Your task to perform on an android device: find snoozed emails in the gmail app Image 0: 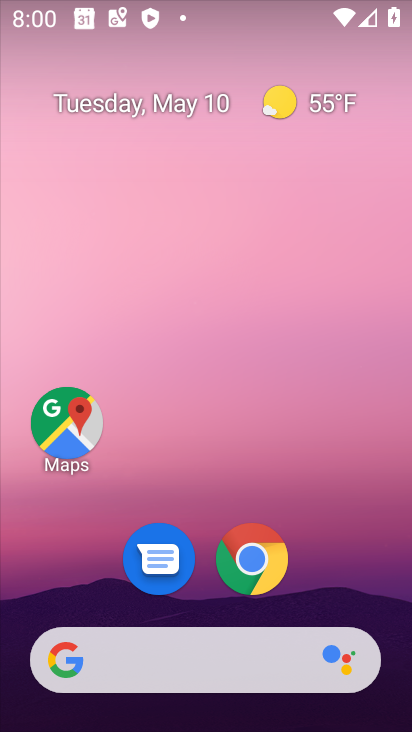
Step 0: drag from (237, 726) to (230, 230)
Your task to perform on an android device: find snoozed emails in the gmail app Image 1: 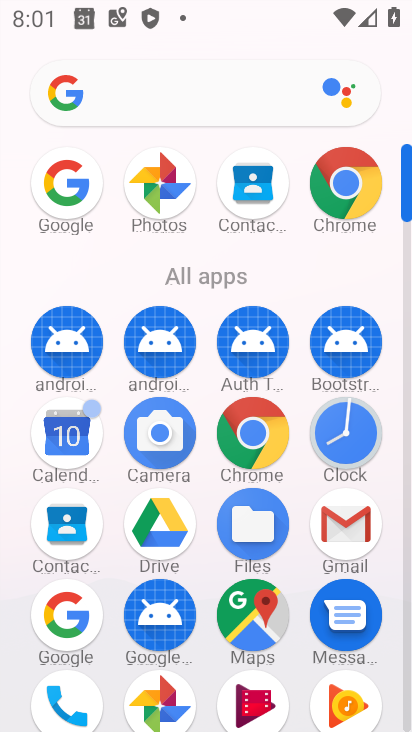
Step 1: drag from (214, 669) to (214, 349)
Your task to perform on an android device: find snoozed emails in the gmail app Image 2: 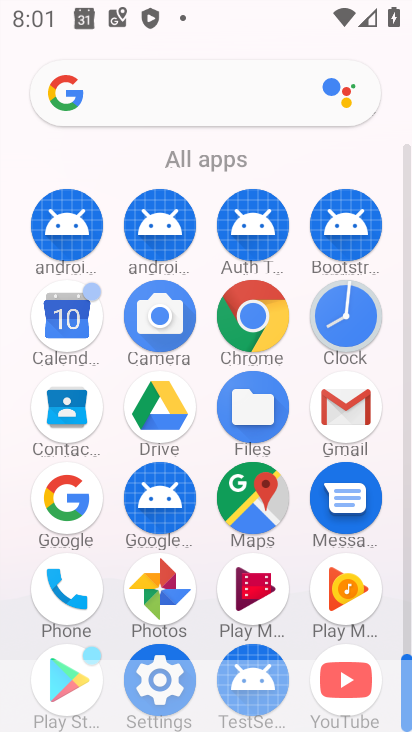
Step 2: click (339, 417)
Your task to perform on an android device: find snoozed emails in the gmail app Image 3: 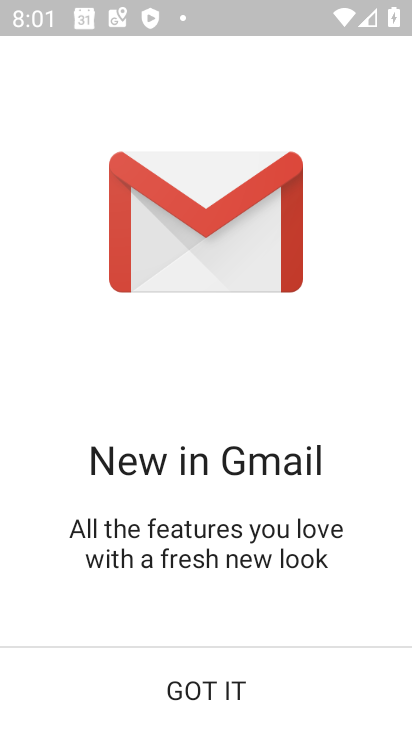
Step 3: click (188, 685)
Your task to perform on an android device: find snoozed emails in the gmail app Image 4: 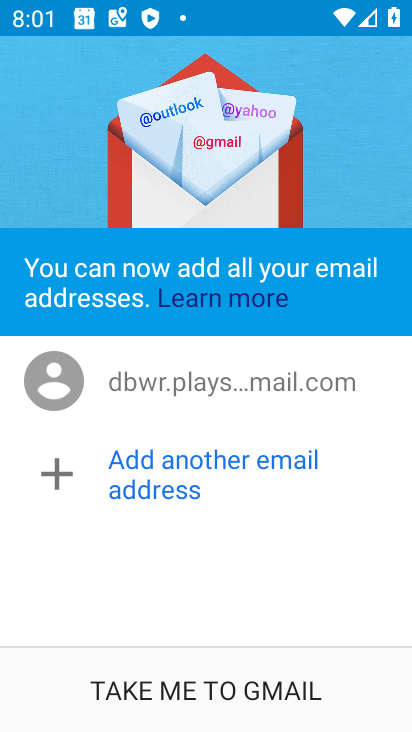
Step 4: click (264, 684)
Your task to perform on an android device: find snoozed emails in the gmail app Image 5: 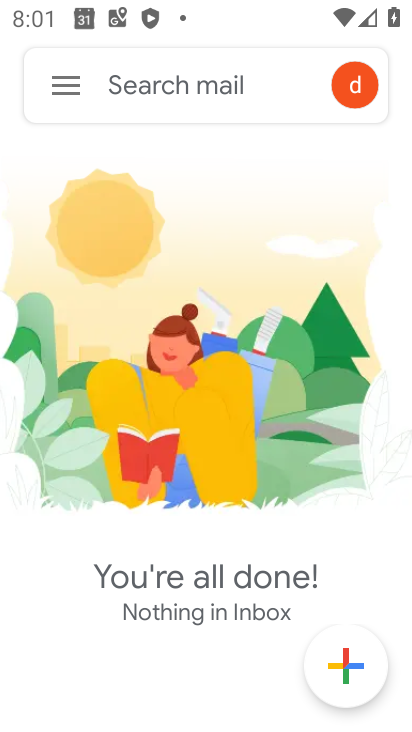
Step 5: click (62, 90)
Your task to perform on an android device: find snoozed emails in the gmail app Image 6: 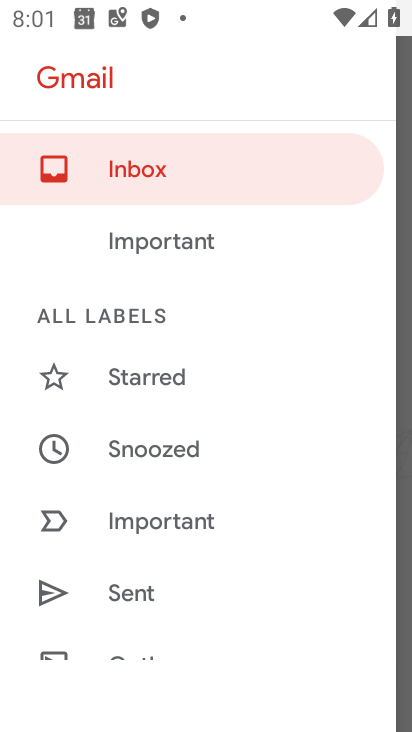
Step 6: click (155, 450)
Your task to perform on an android device: find snoozed emails in the gmail app Image 7: 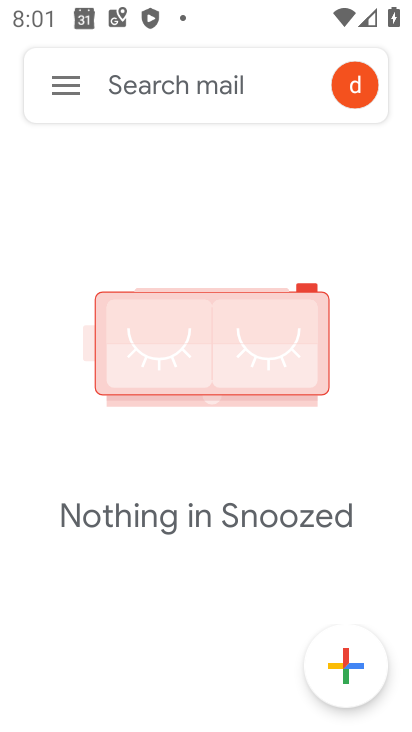
Step 7: task complete